Your task to perform on an android device: change the clock style Image 0: 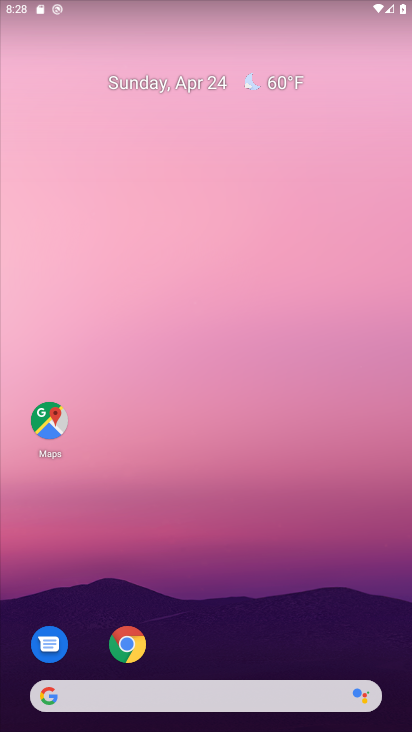
Step 0: drag from (217, 672) to (199, 133)
Your task to perform on an android device: change the clock style Image 1: 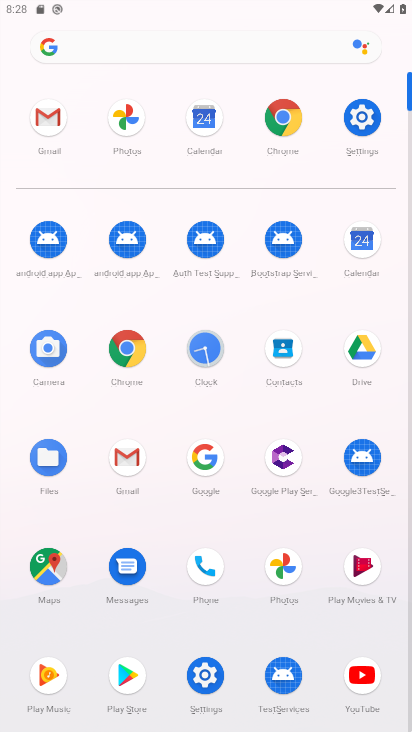
Step 1: click (202, 343)
Your task to perform on an android device: change the clock style Image 2: 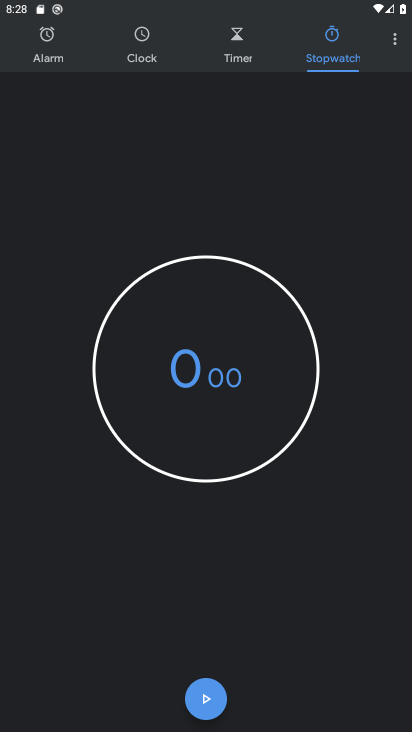
Step 2: click (394, 39)
Your task to perform on an android device: change the clock style Image 3: 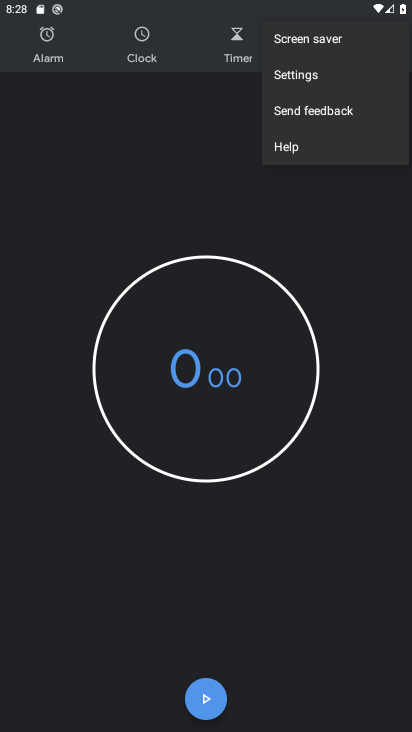
Step 3: click (330, 77)
Your task to perform on an android device: change the clock style Image 4: 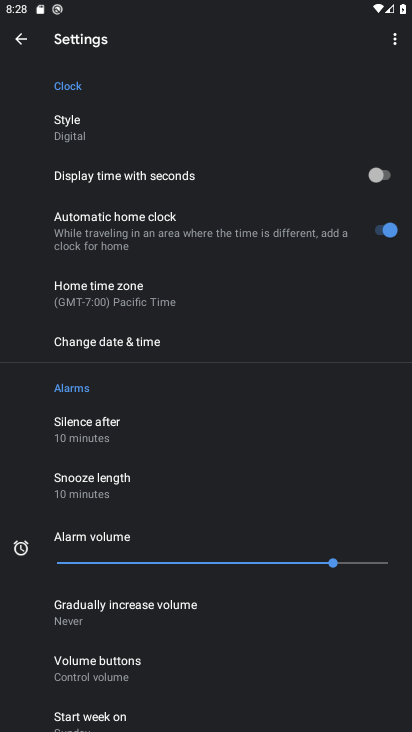
Step 4: click (91, 127)
Your task to perform on an android device: change the clock style Image 5: 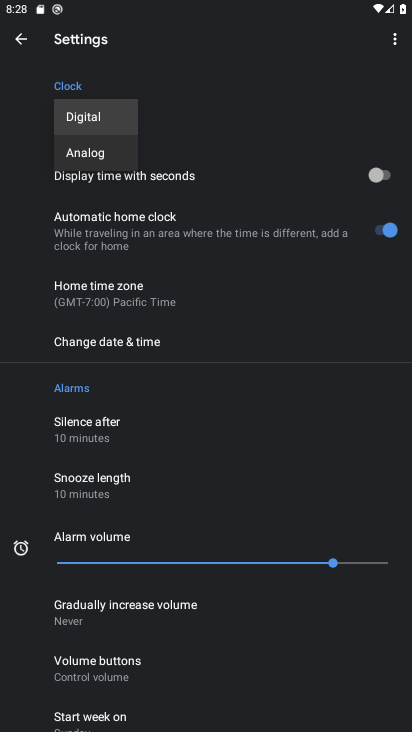
Step 5: click (115, 160)
Your task to perform on an android device: change the clock style Image 6: 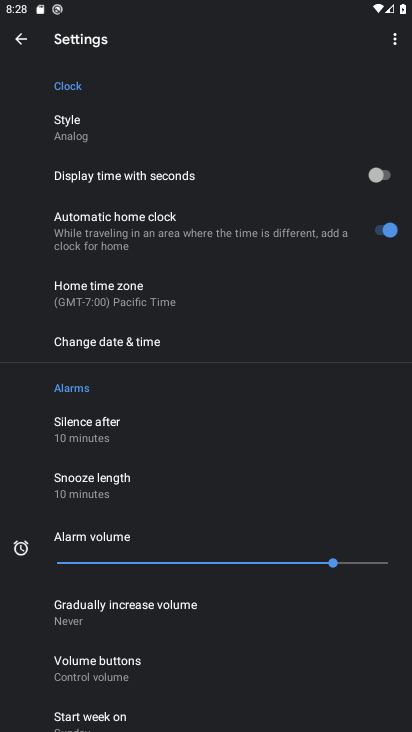
Step 6: task complete